Your task to perform on an android device: Open Youtube and go to the subscriptions tab Image 0: 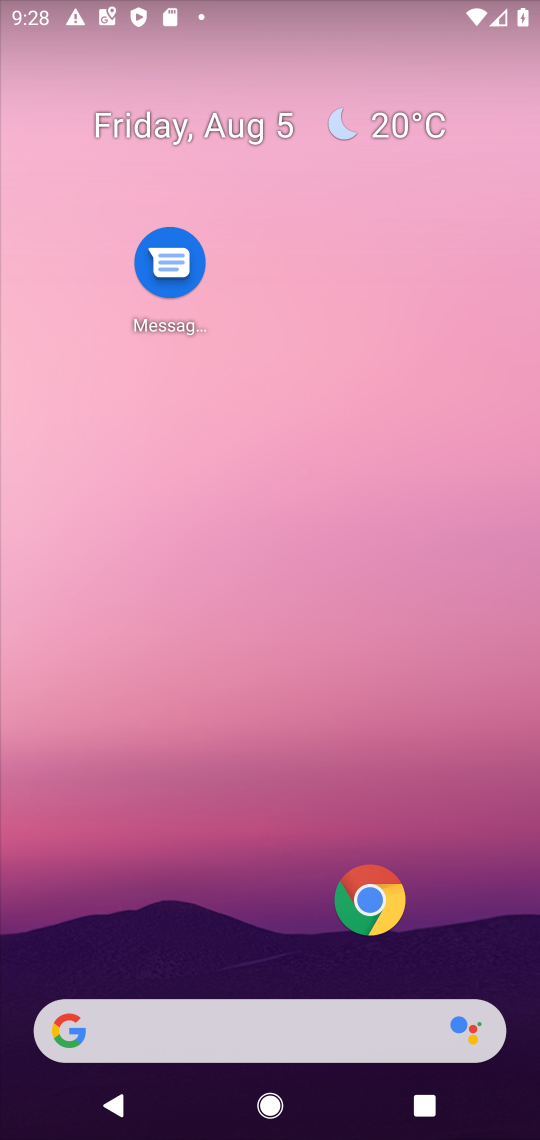
Step 0: press home button
Your task to perform on an android device: Open Youtube and go to the subscriptions tab Image 1: 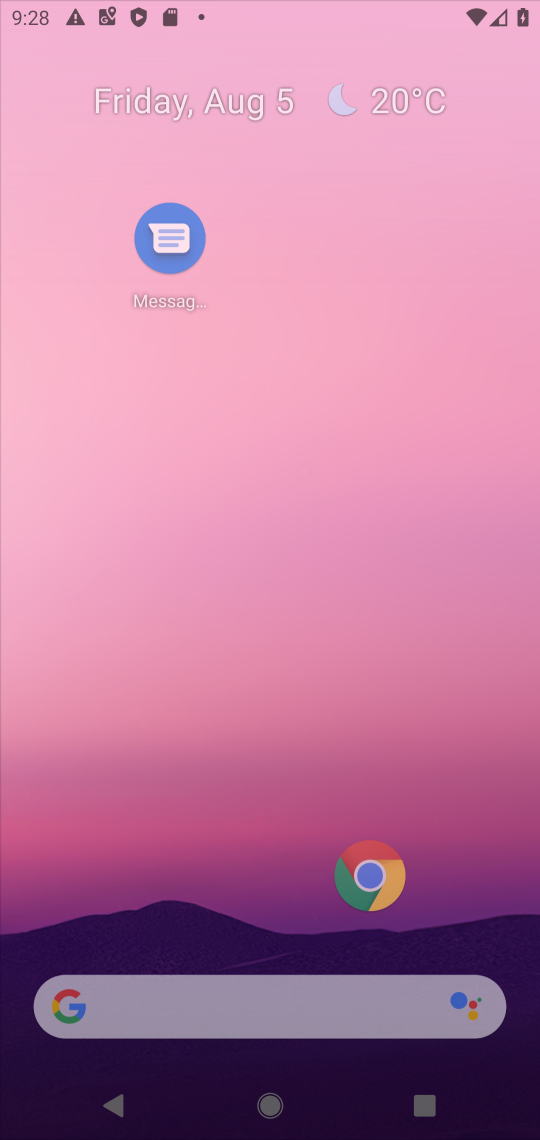
Step 1: drag from (118, 956) to (163, 48)
Your task to perform on an android device: Open Youtube and go to the subscriptions tab Image 2: 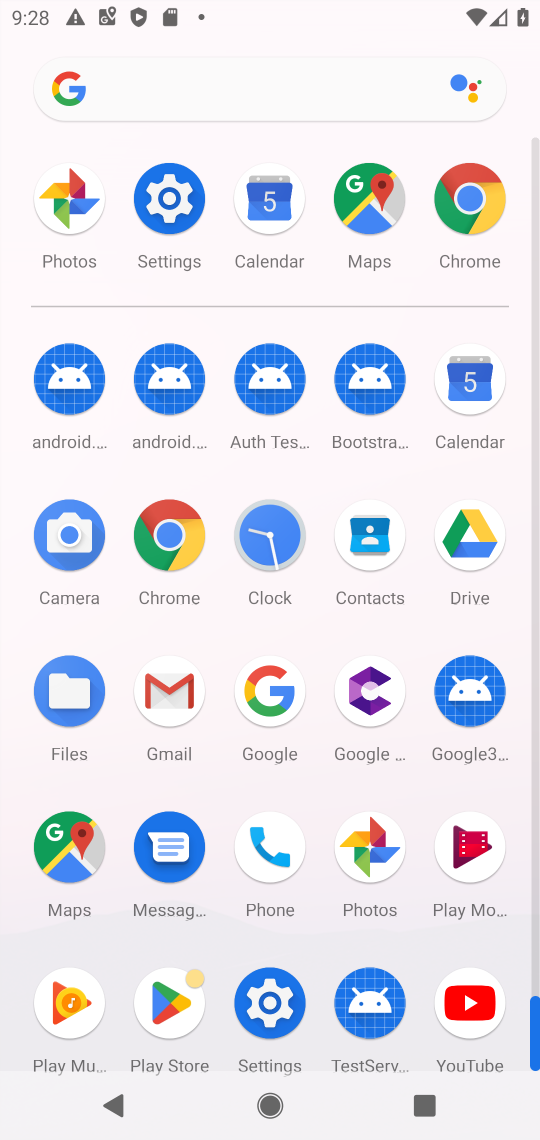
Step 2: click (461, 1019)
Your task to perform on an android device: Open Youtube and go to the subscriptions tab Image 3: 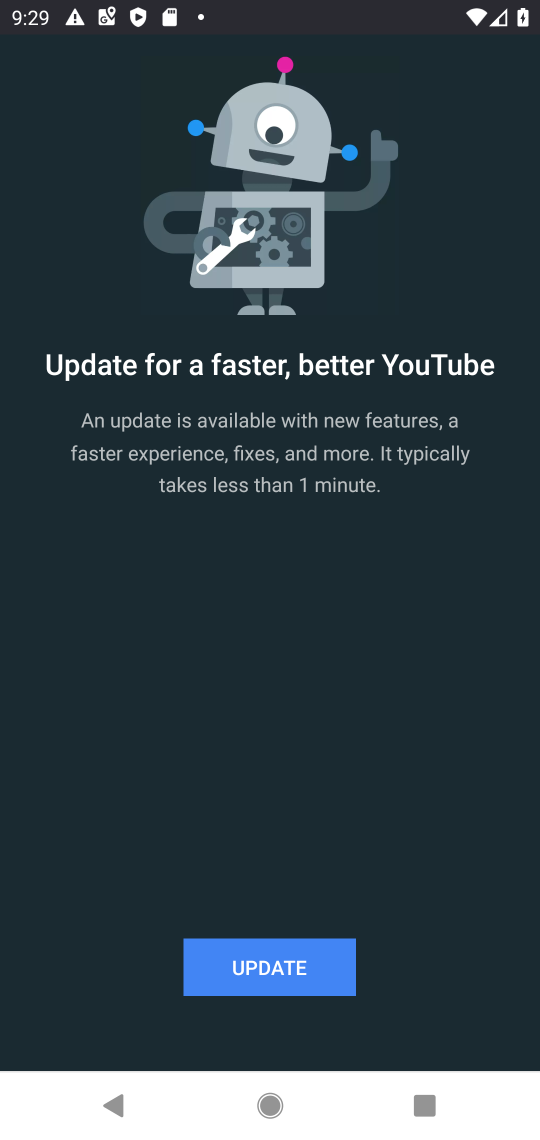
Step 3: click (280, 962)
Your task to perform on an android device: Open Youtube and go to the subscriptions tab Image 4: 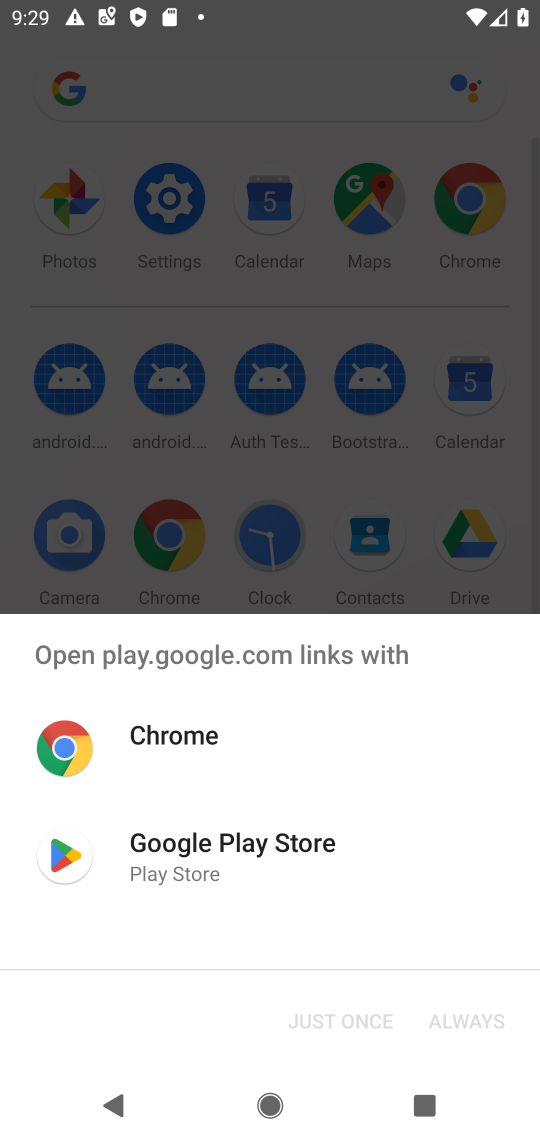
Step 4: click (251, 854)
Your task to perform on an android device: Open Youtube and go to the subscriptions tab Image 5: 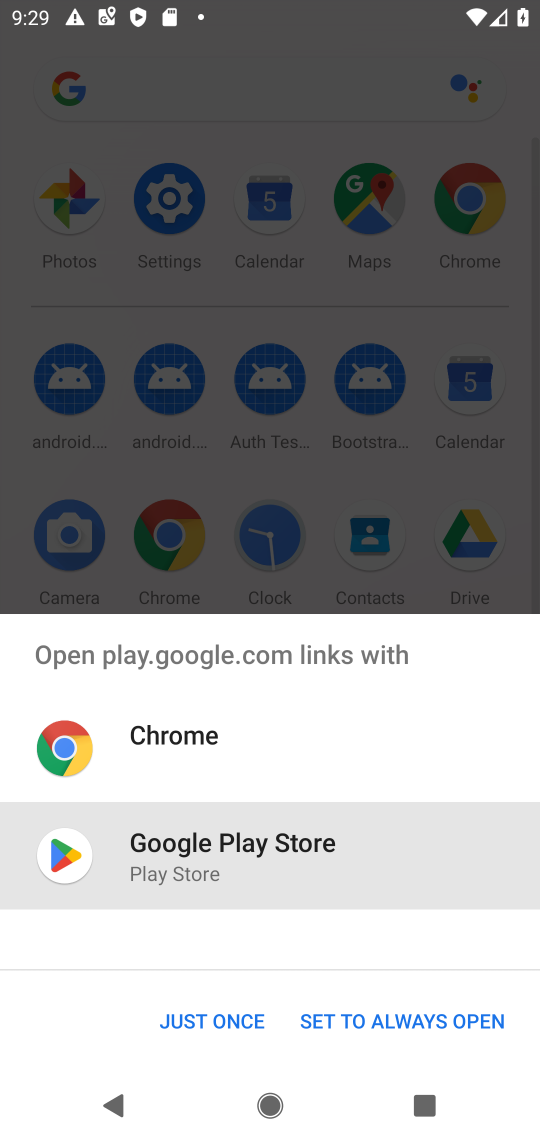
Step 5: click (201, 1022)
Your task to perform on an android device: Open Youtube and go to the subscriptions tab Image 6: 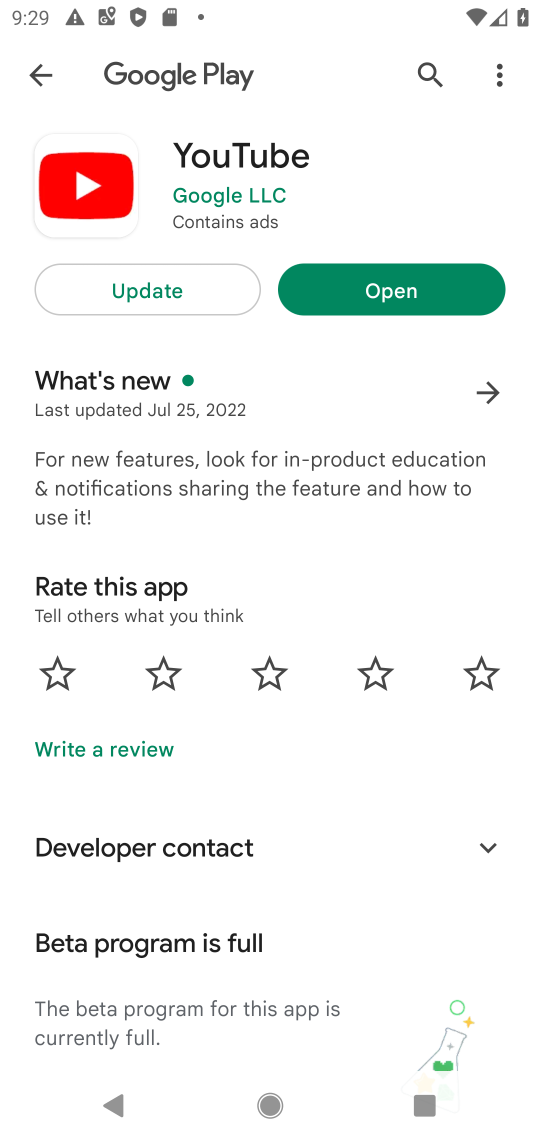
Step 6: click (217, 301)
Your task to perform on an android device: Open Youtube and go to the subscriptions tab Image 7: 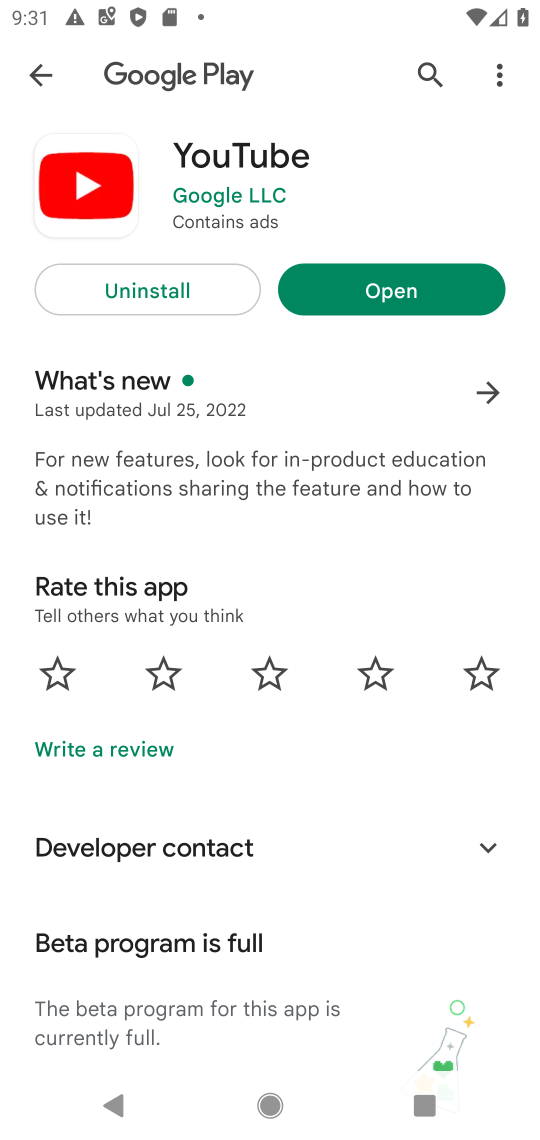
Step 7: click (427, 277)
Your task to perform on an android device: Open Youtube and go to the subscriptions tab Image 8: 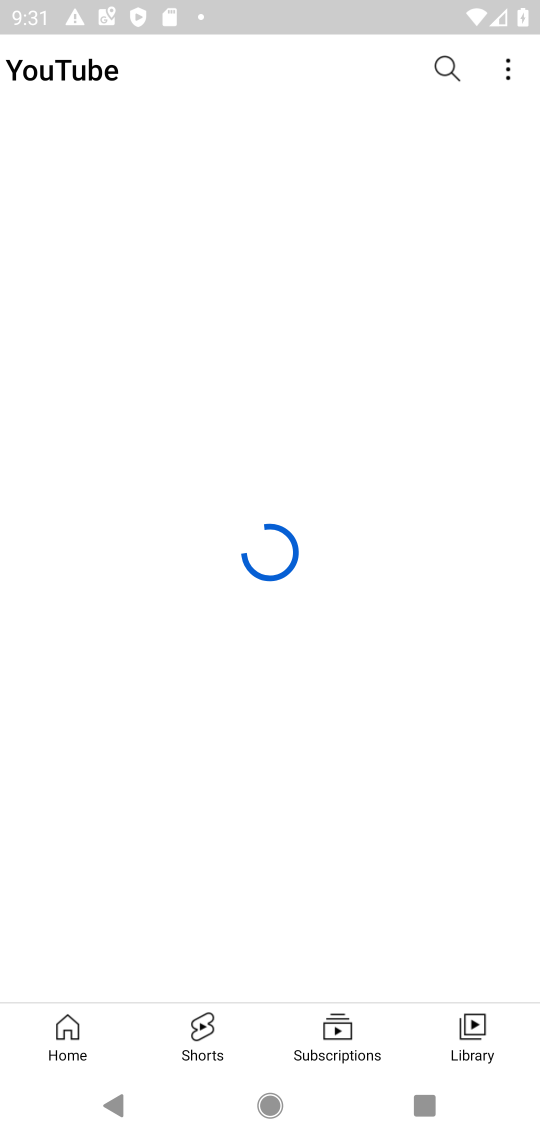
Step 8: click (252, 968)
Your task to perform on an android device: Open Youtube and go to the subscriptions tab Image 9: 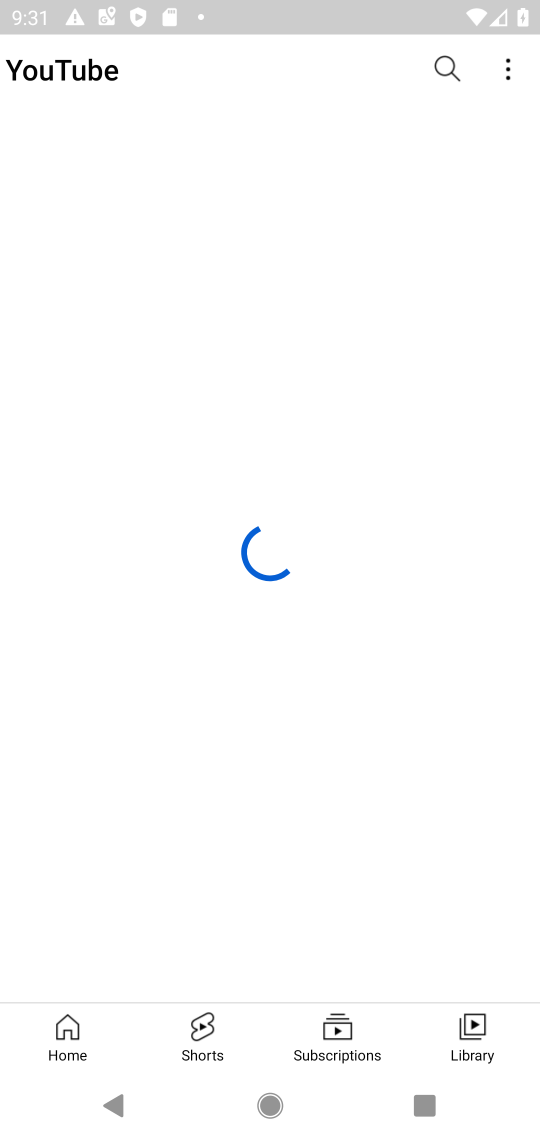
Step 9: click (346, 1035)
Your task to perform on an android device: Open Youtube and go to the subscriptions tab Image 10: 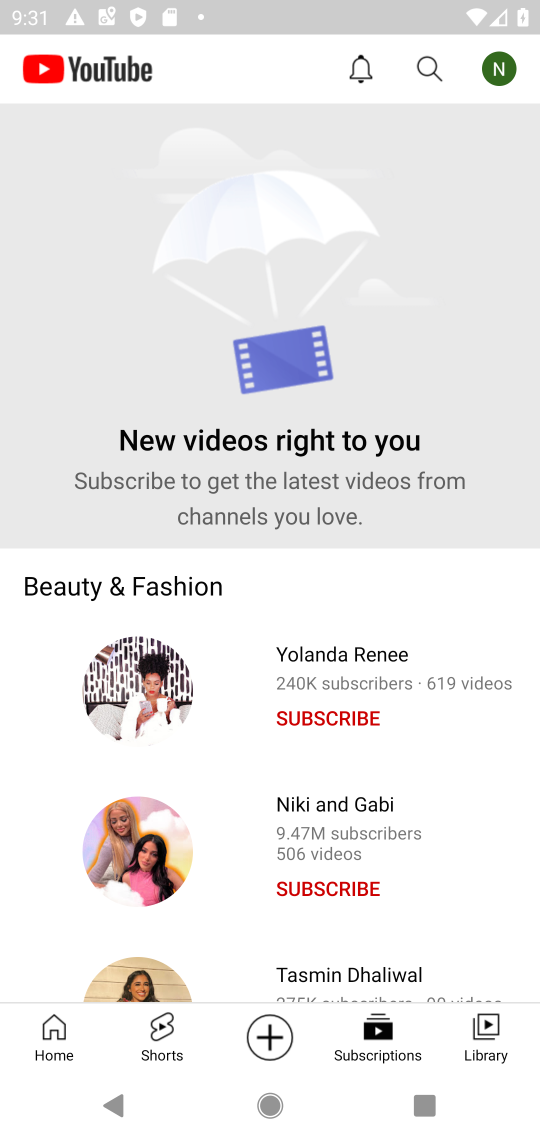
Step 10: task complete